Your task to perform on an android device: Open Youtube and go to "Your channel" Image 0: 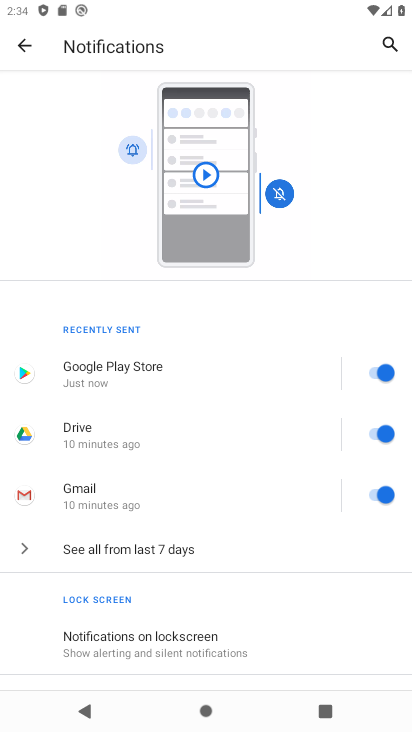
Step 0: press home button
Your task to perform on an android device: Open Youtube and go to "Your channel" Image 1: 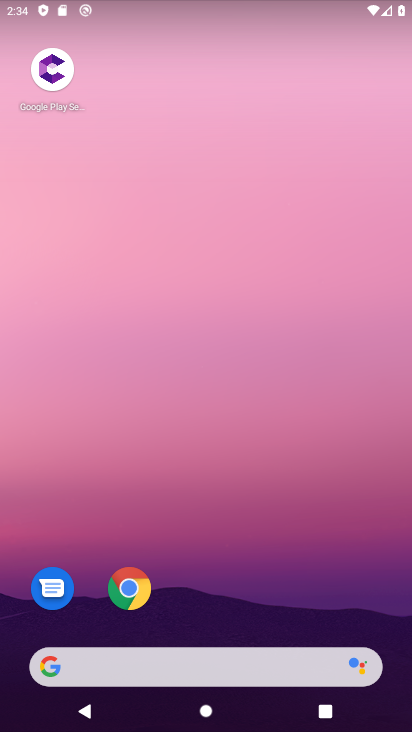
Step 1: drag from (214, 621) to (243, 103)
Your task to perform on an android device: Open Youtube and go to "Your channel" Image 2: 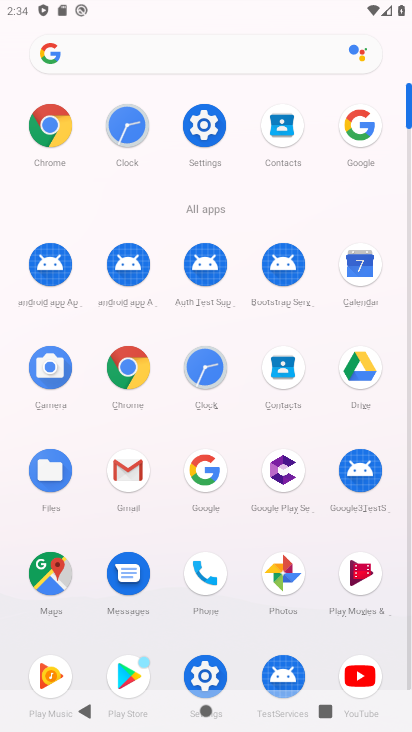
Step 2: drag from (318, 551) to (330, 292)
Your task to perform on an android device: Open Youtube and go to "Your channel" Image 3: 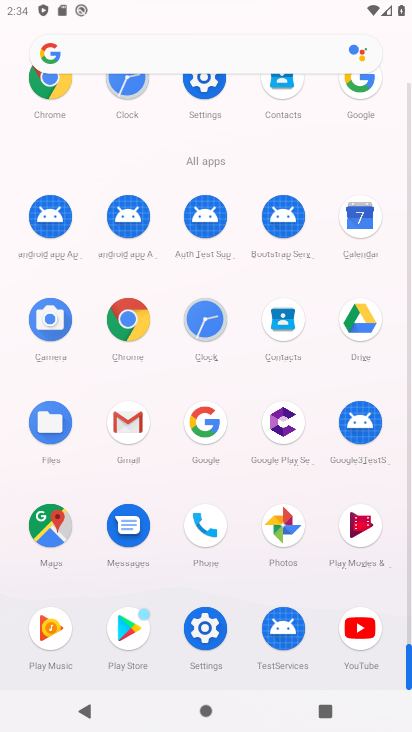
Step 3: click (362, 627)
Your task to perform on an android device: Open Youtube and go to "Your channel" Image 4: 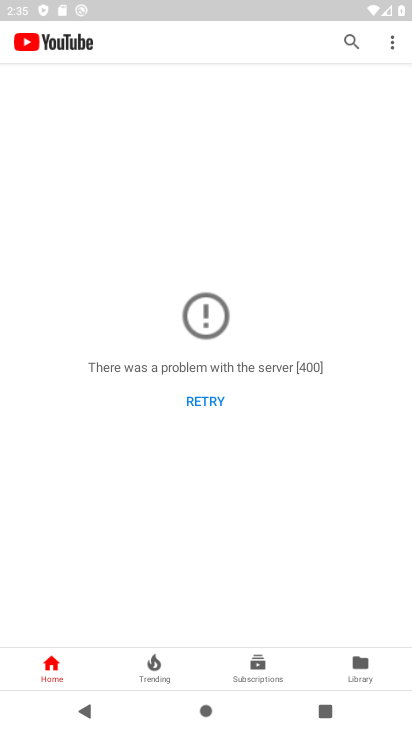
Step 4: click (208, 407)
Your task to perform on an android device: Open Youtube and go to "Your channel" Image 5: 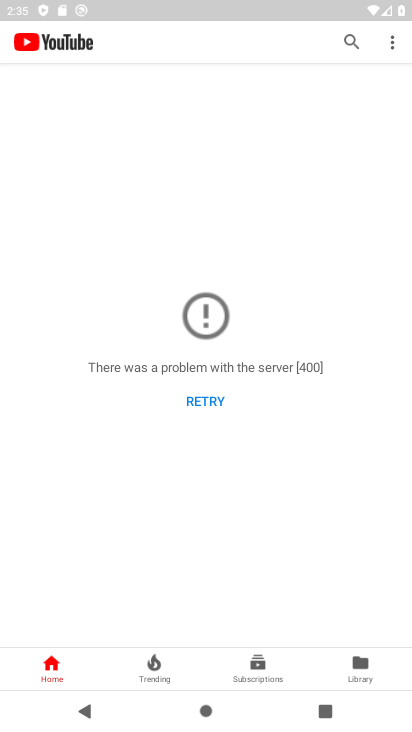
Step 5: click (208, 407)
Your task to perform on an android device: Open Youtube and go to "Your channel" Image 6: 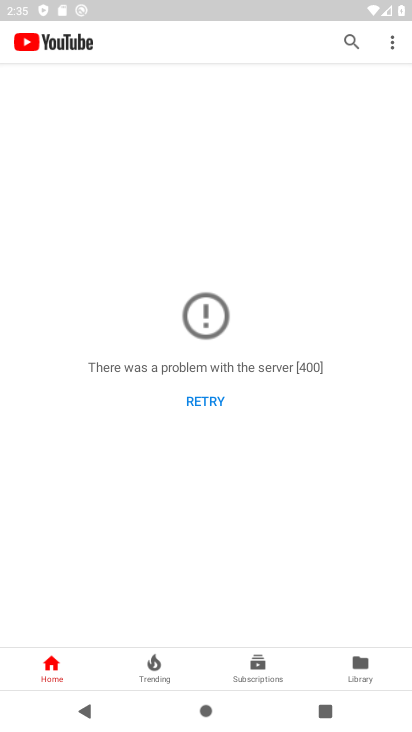
Step 6: click (215, 399)
Your task to perform on an android device: Open Youtube and go to "Your channel" Image 7: 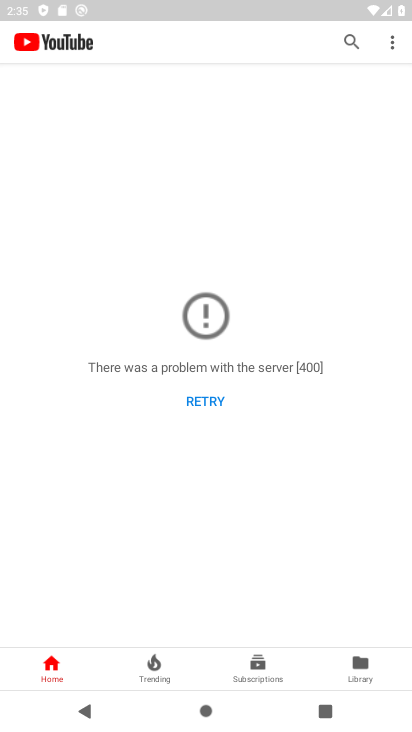
Step 7: click (391, 39)
Your task to perform on an android device: Open Youtube and go to "Your channel" Image 8: 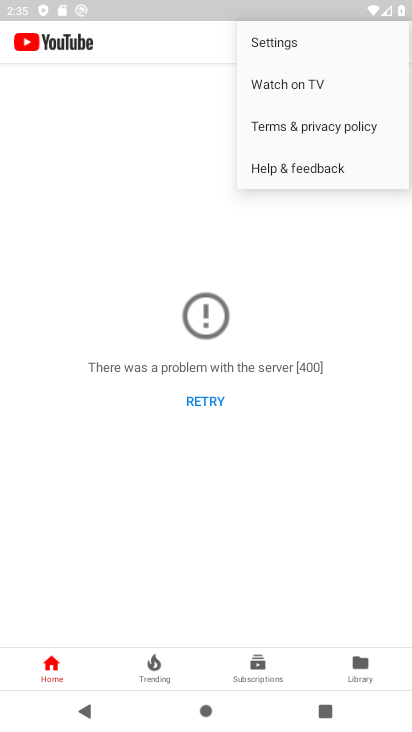
Step 8: click (294, 447)
Your task to perform on an android device: Open Youtube and go to "Your channel" Image 9: 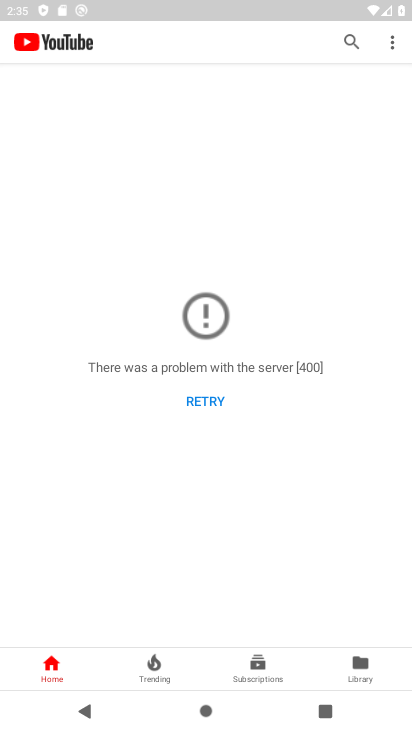
Step 9: click (213, 405)
Your task to perform on an android device: Open Youtube and go to "Your channel" Image 10: 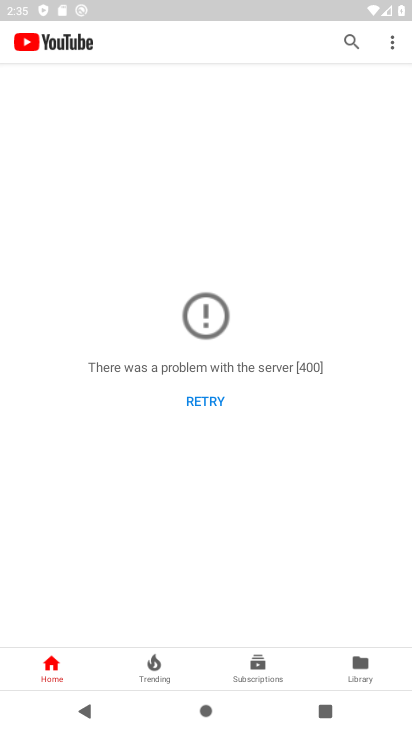
Step 10: task complete